Your task to perform on an android device: Open Wikipedia Image 0: 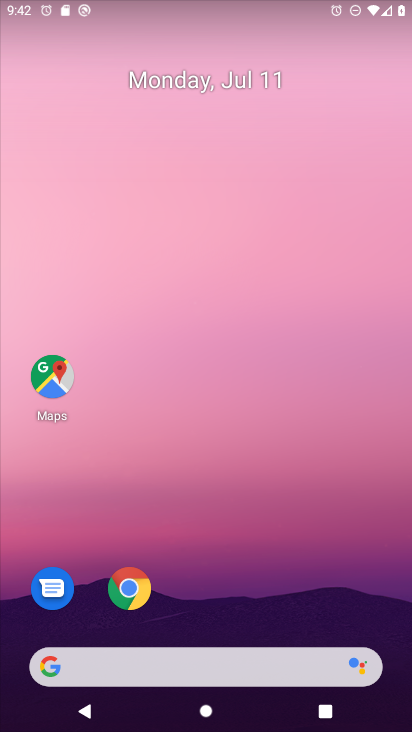
Step 0: click (132, 598)
Your task to perform on an android device: Open Wikipedia Image 1: 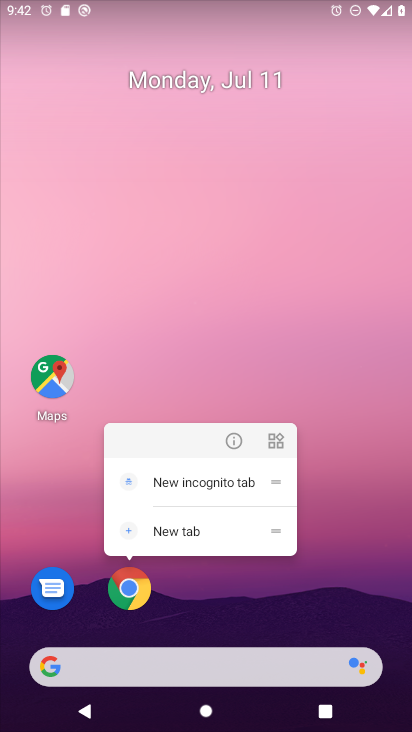
Step 1: click (135, 586)
Your task to perform on an android device: Open Wikipedia Image 2: 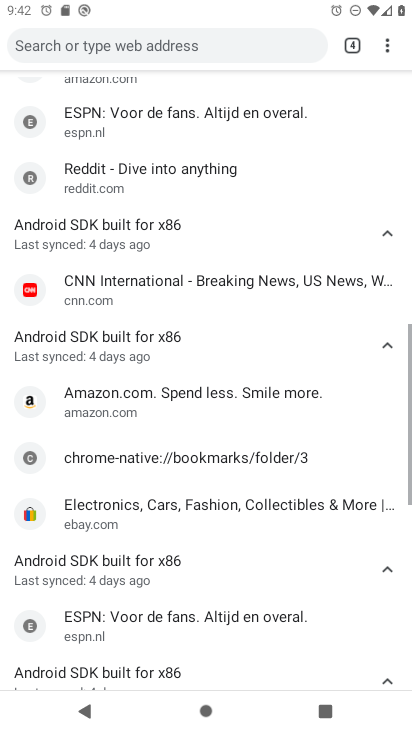
Step 2: drag from (387, 52) to (281, 155)
Your task to perform on an android device: Open Wikipedia Image 3: 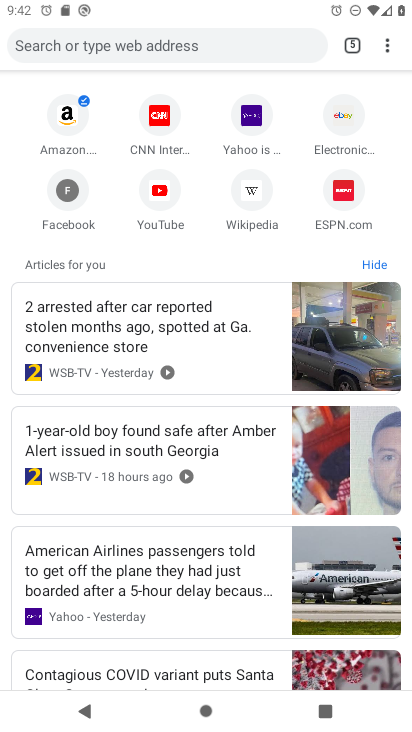
Step 3: click (253, 199)
Your task to perform on an android device: Open Wikipedia Image 4: 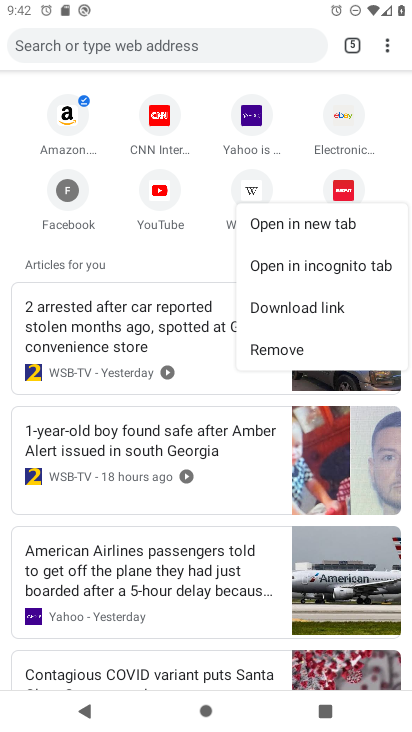
Step 4: click (248, 188)
Your task to perform on an android device: Open Wikipedia Image 5: 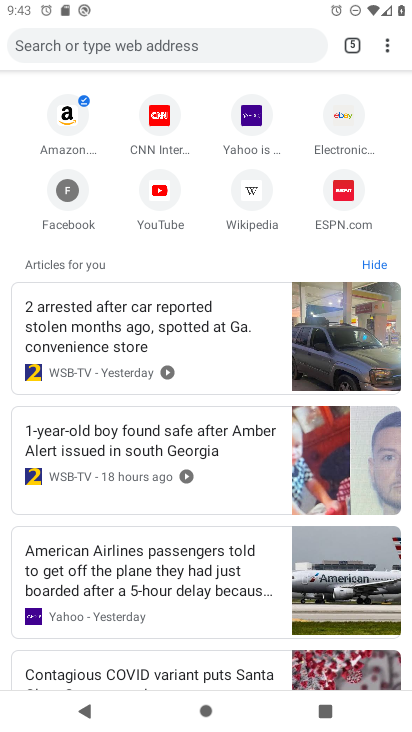
Step 5: click (248, 186)
Your task to perform on an android device: Open Wikipedia Image 6: 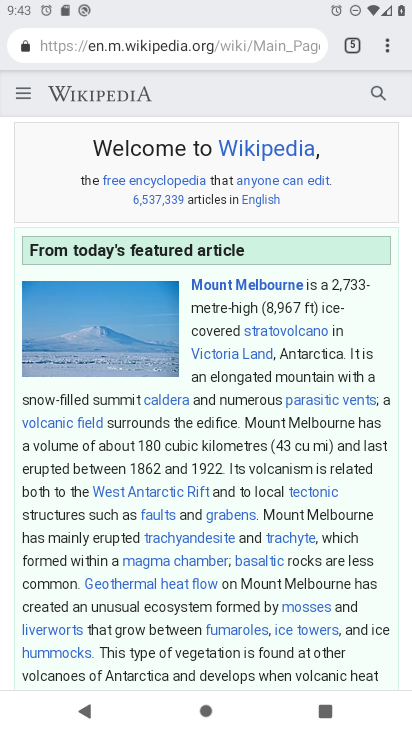
Step 6: task complete